Your task to perform on an android device: open app "Microsoft Excel" (install if not already installed) Image 0: 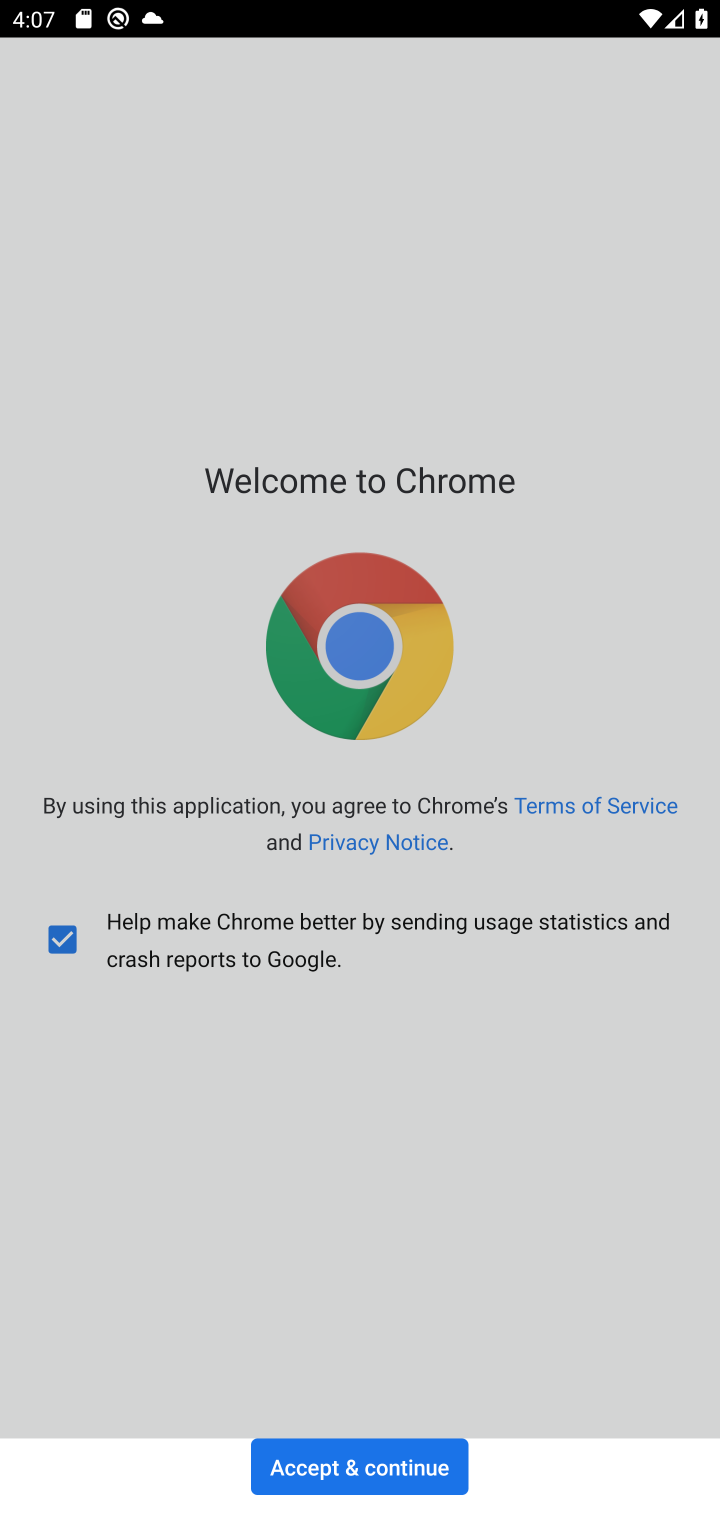
Step 0: press home button
Your task to perform on an android device: open app "Microsoft Excel" (install if not already installed) Image 1: 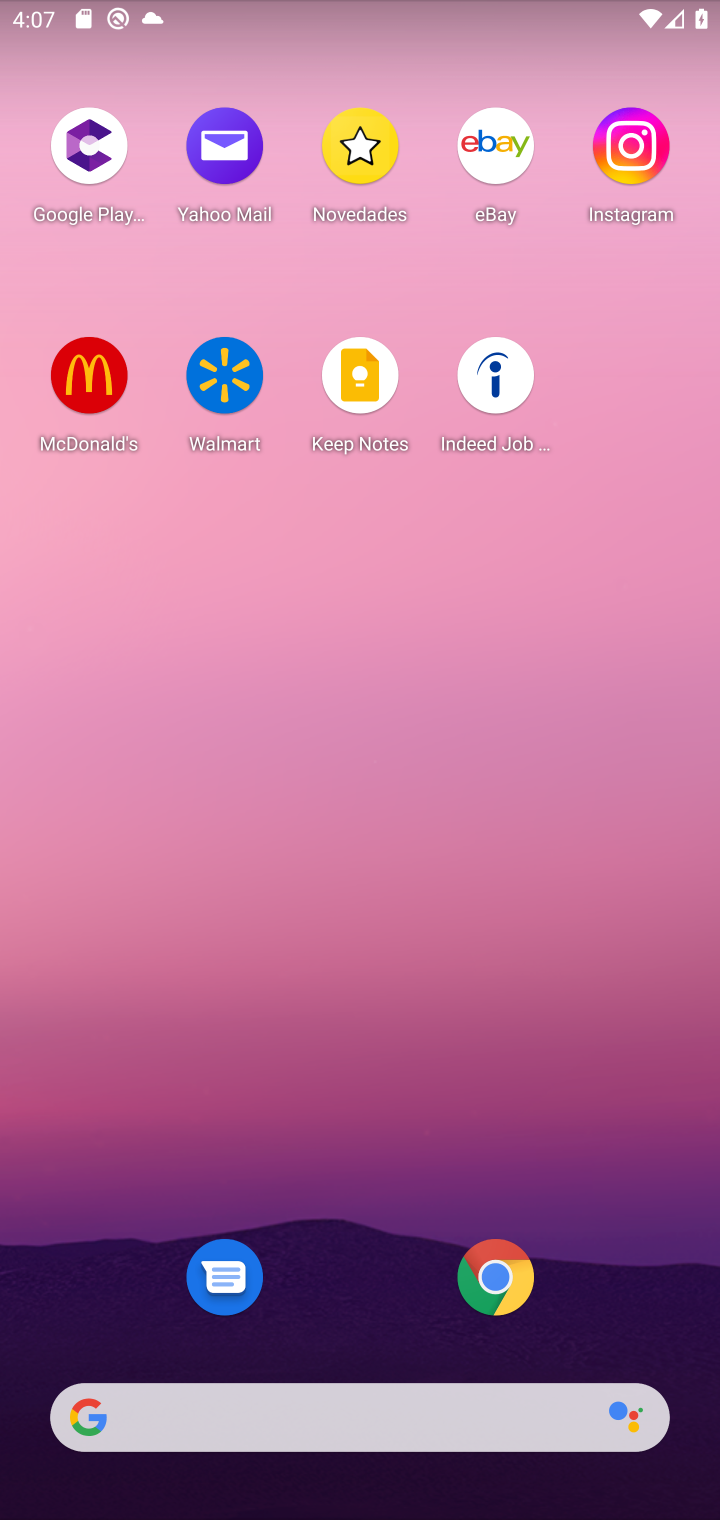
Step 1: drag from (592, 1164) to (571, 171)
Your task to perform on an android device: open app "Microsoft Excel" (install if not already installed) Image 2: 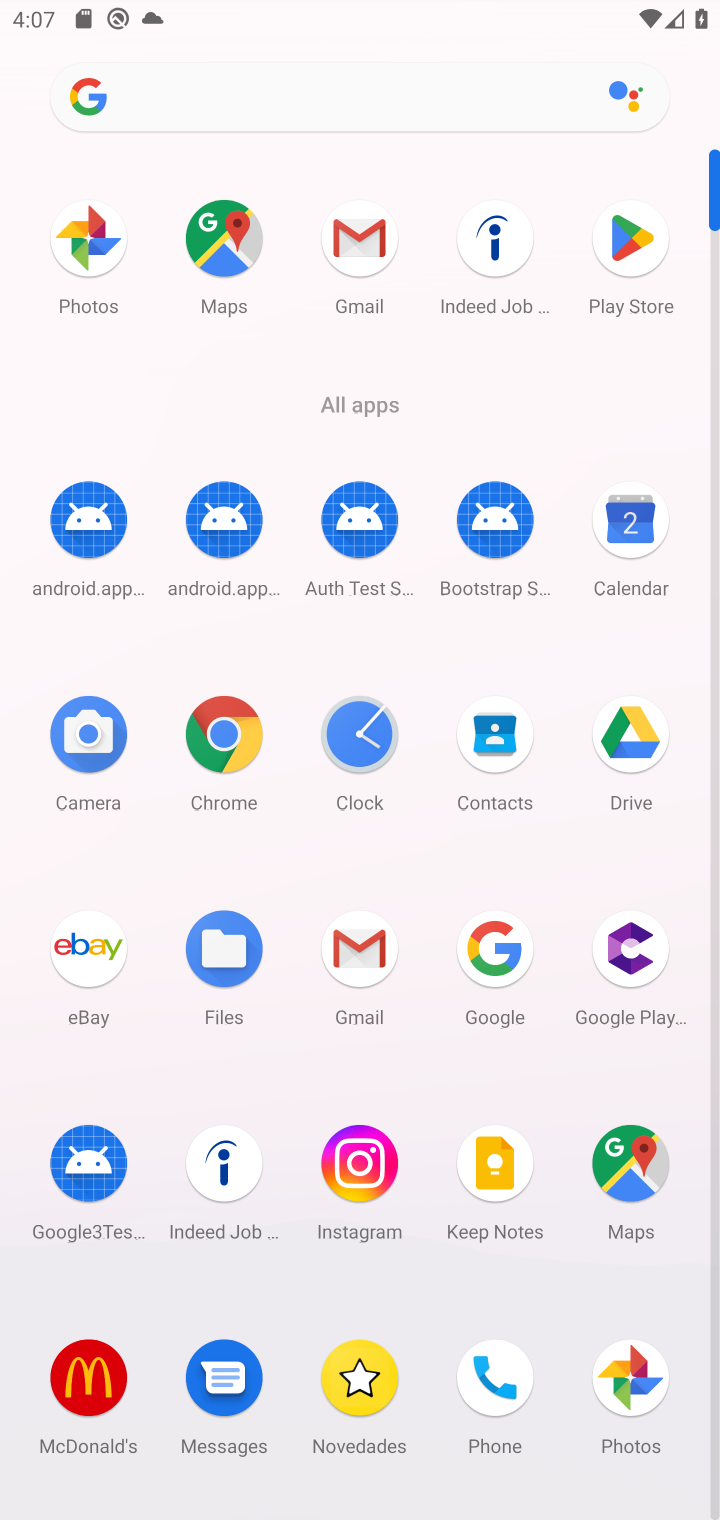
Step 2: drag from (424, 1268) to (451, 413)
Your task to perform on an android device: open app "Microsoft Excel" (install if not already installed) Image 3: 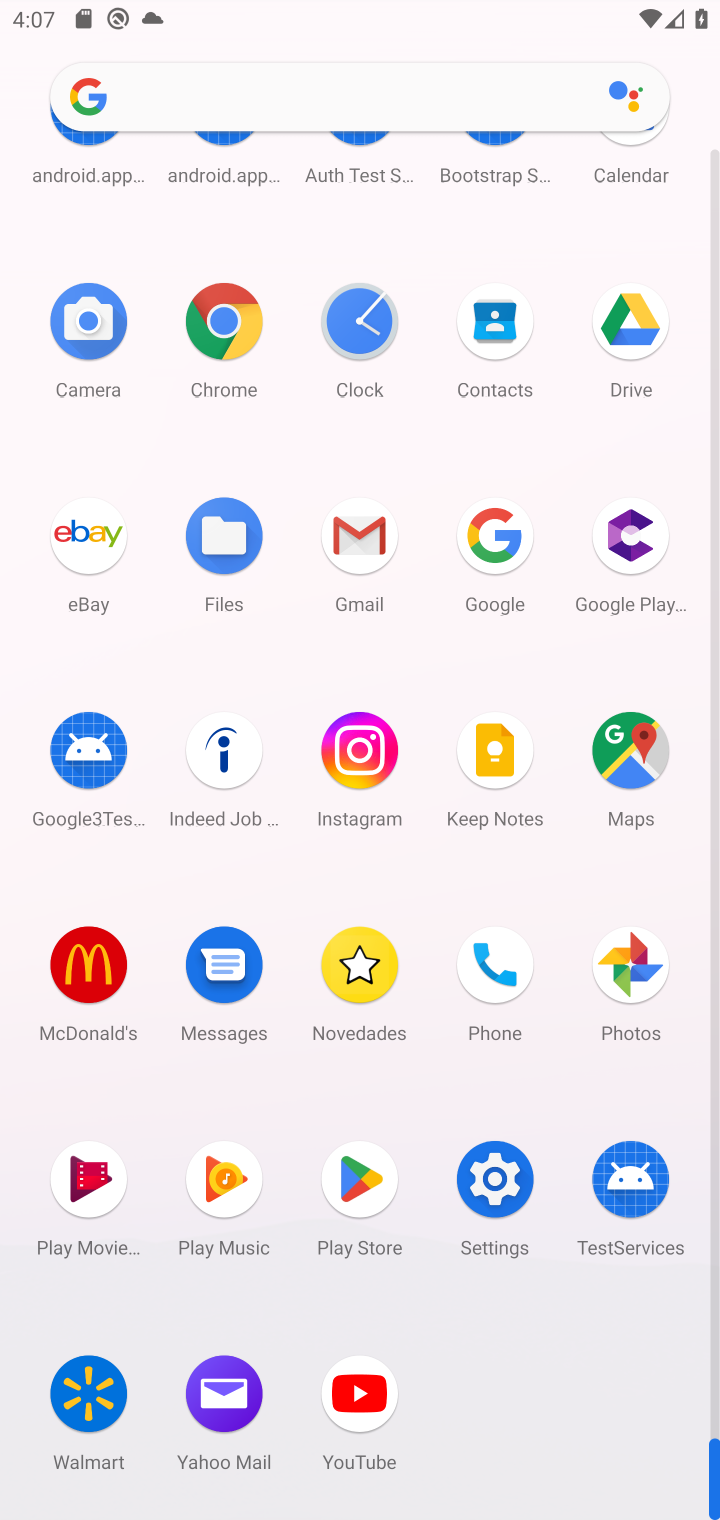
Step 3: click (362, 1163)
Your task to perform on an android device: open app "Microsoft Excel" (install if not already installed) Image 4: 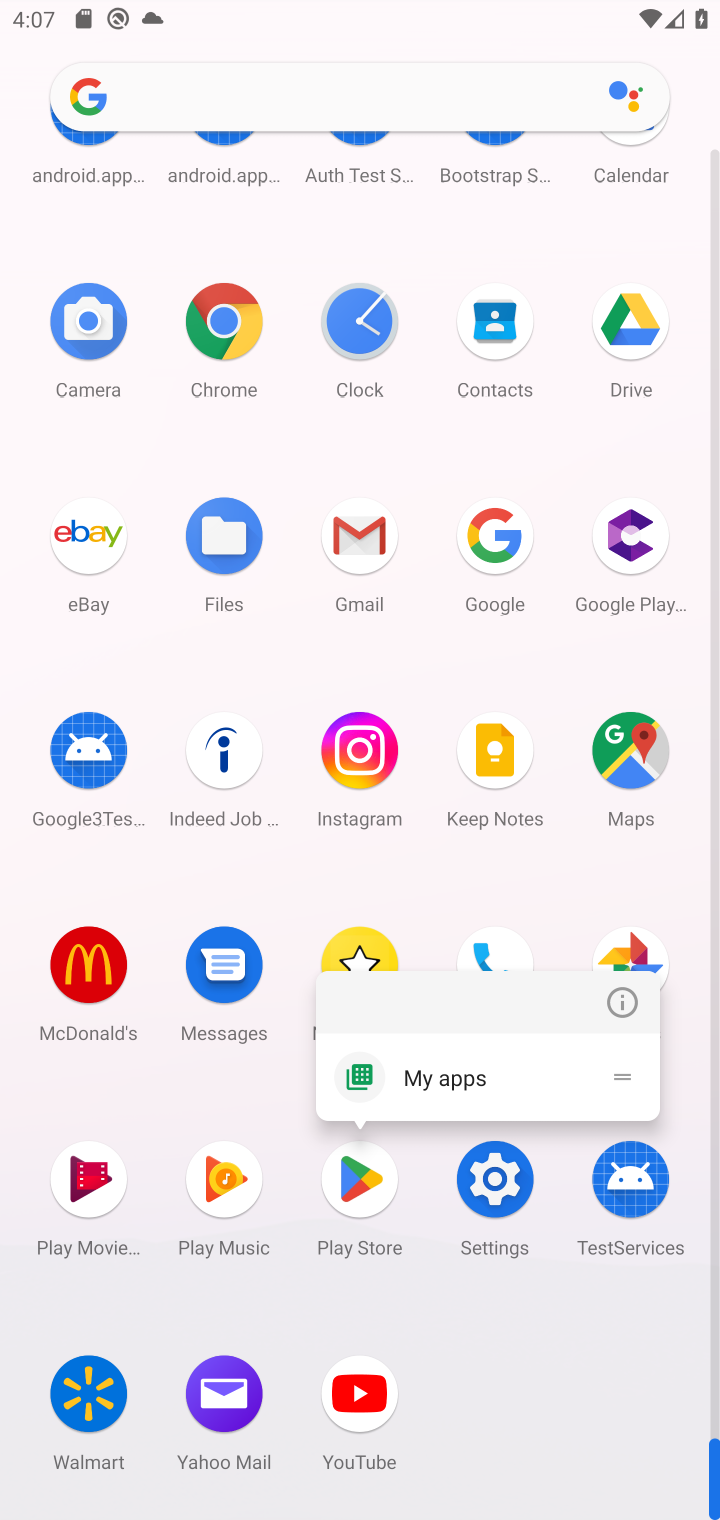
Step 4: click (353, 1161)
Your task to perform on an android device: open app "Microsoft Excel" (install if not already installed) Image 5: 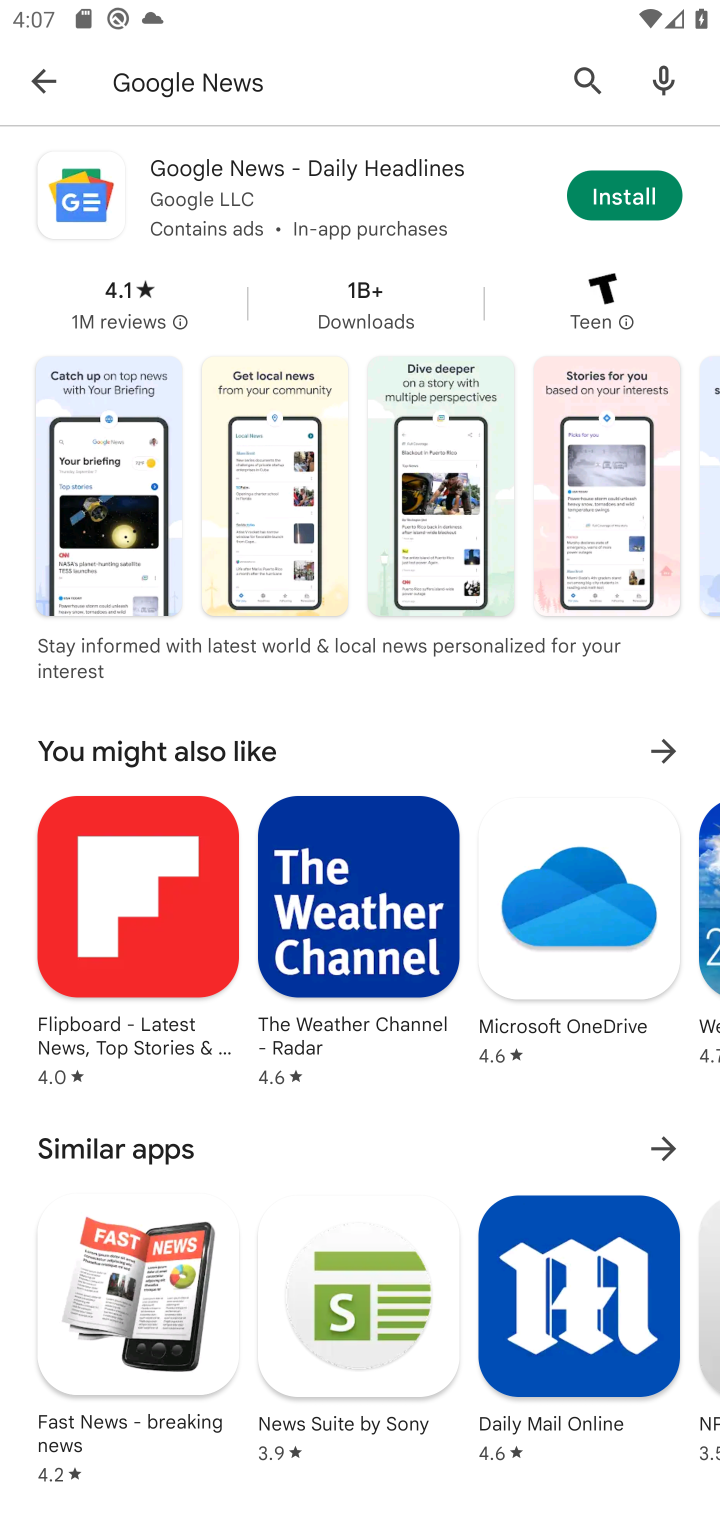
Step 5: click (360, 85)
Your task to perform on an android device: open app "Microsoft Excel" (install if not already installed) Image 6: 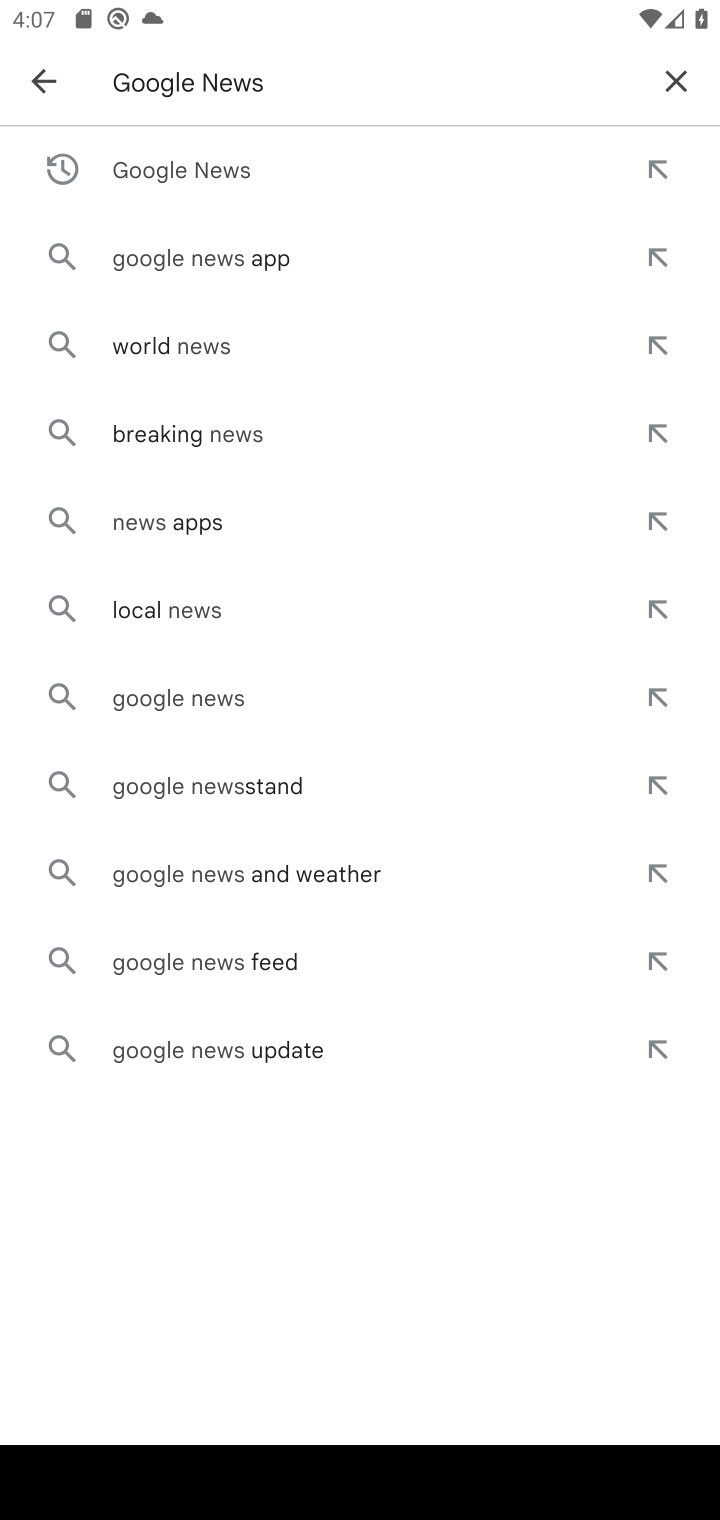
Step 6: click (676, 85)
Your task to perform on an android device: open app "Microsoft Excel" (install if not already installed) Image 7: 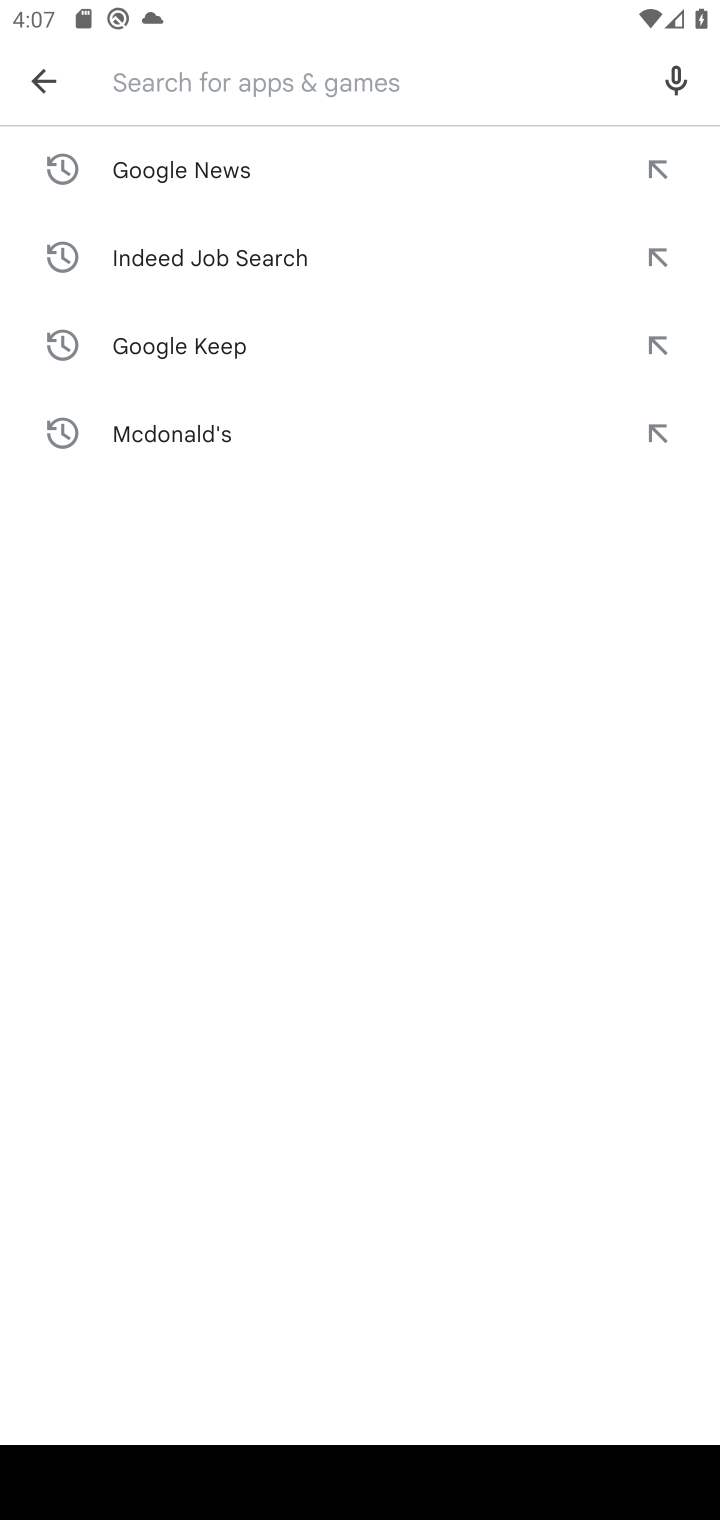
Step 7: type "Microsoft Excel"
Your task to perform on an android device: open app "Microsoft Excel" (install if not already installed) Image 8: 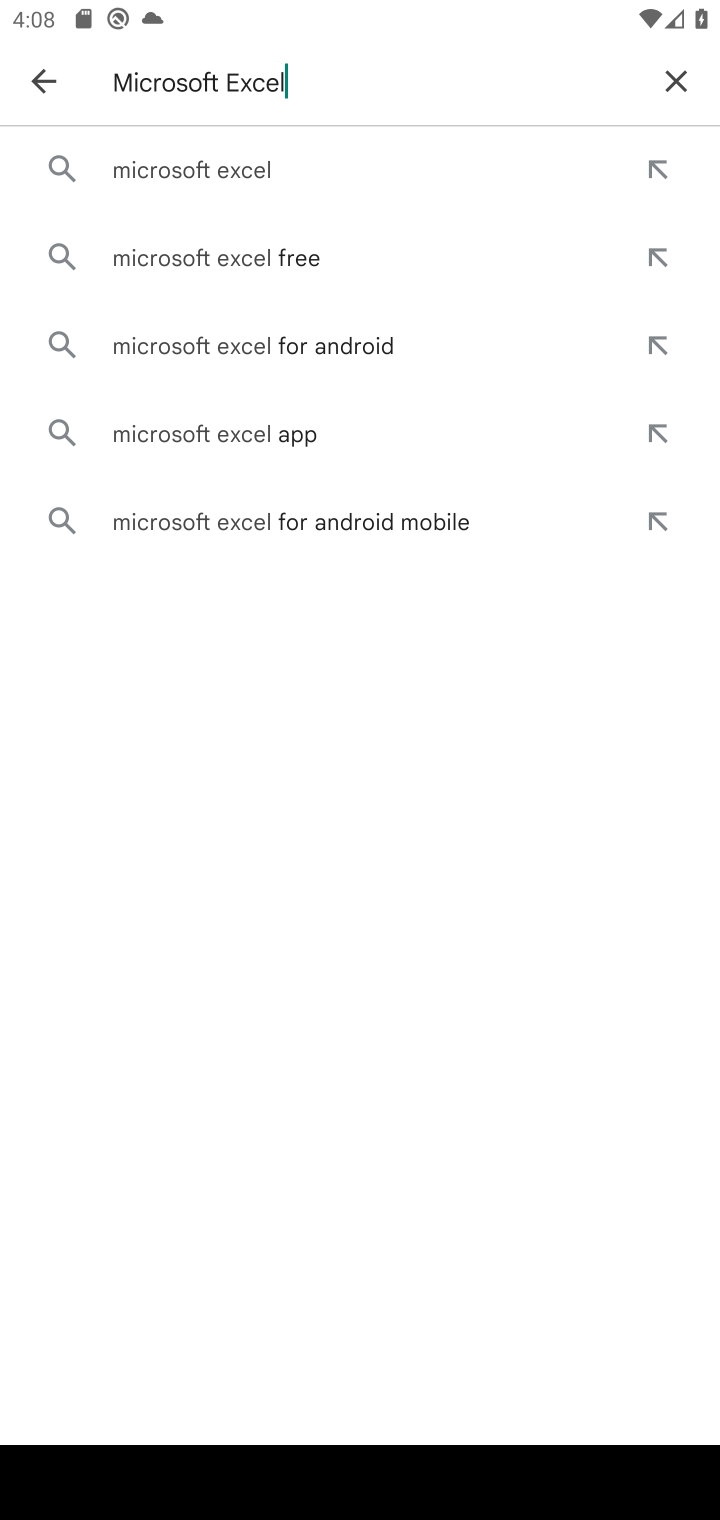
Step 8: press enter
Your task to perform on an android device: open app "Microsoft Excel" (install if not already installed) Image 9: 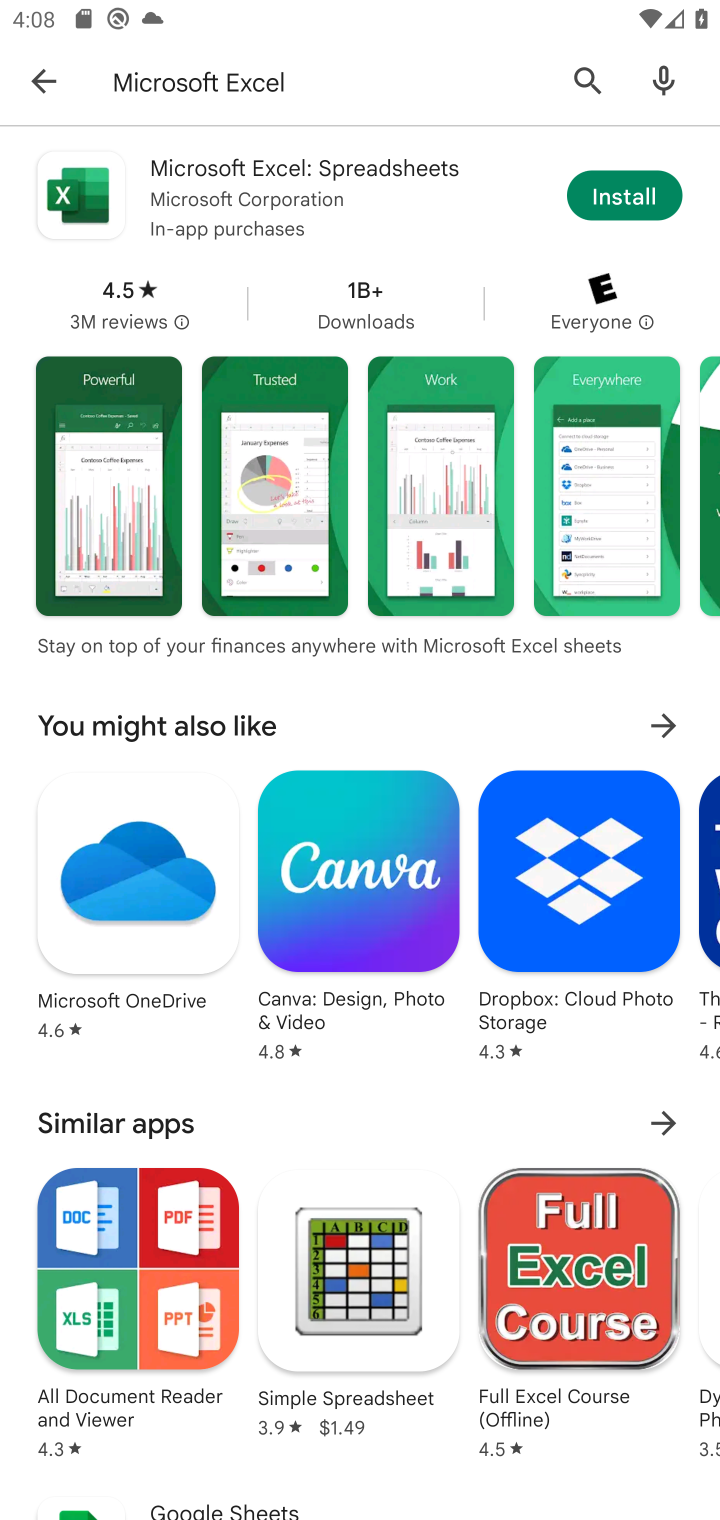
Step 9: click (627, 183)
Your task to perform on an android device: open app "Microsoft Excel" (install if not already installed) Image 10: 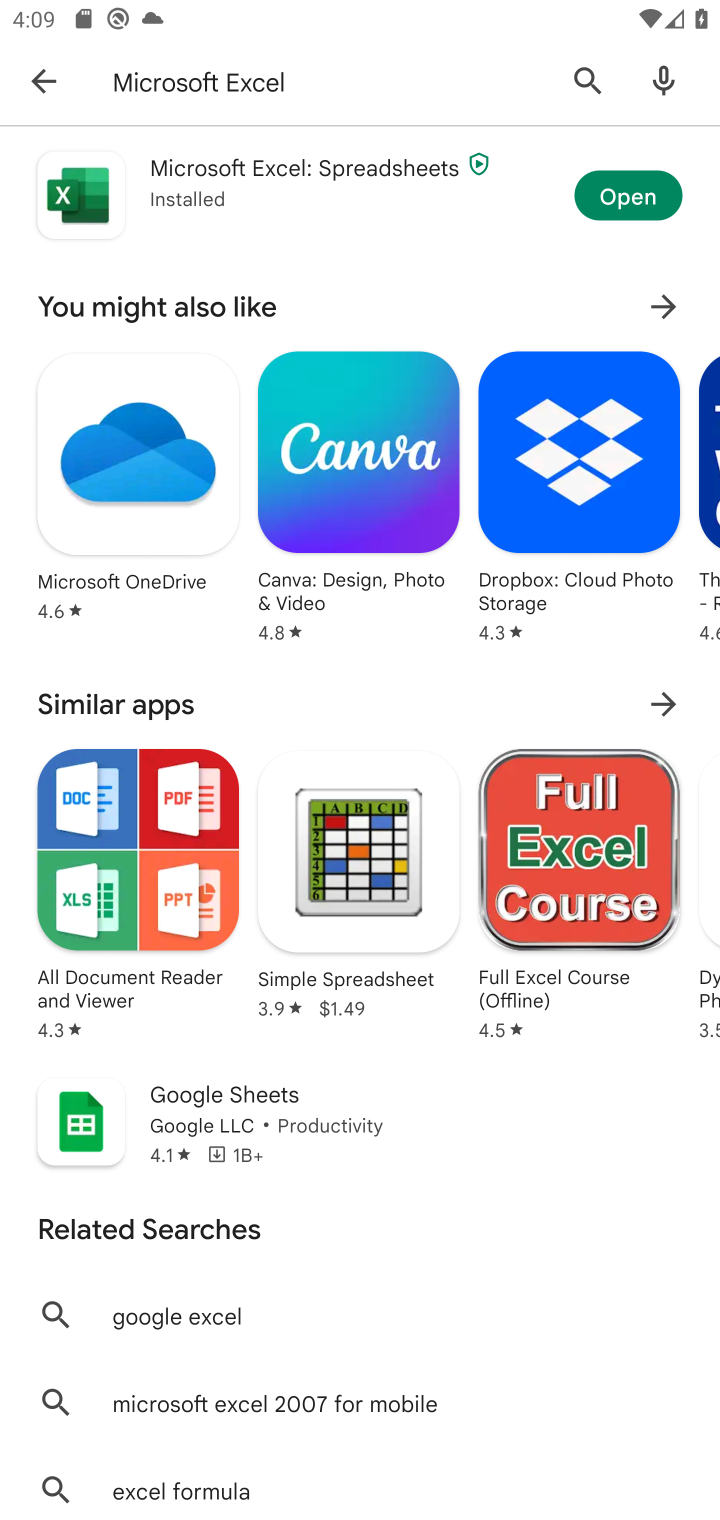
Step 10: click (636, 202)
Your task to perform on an android device: open app "Microsoft Excel" (install if not already installed) Image 11: 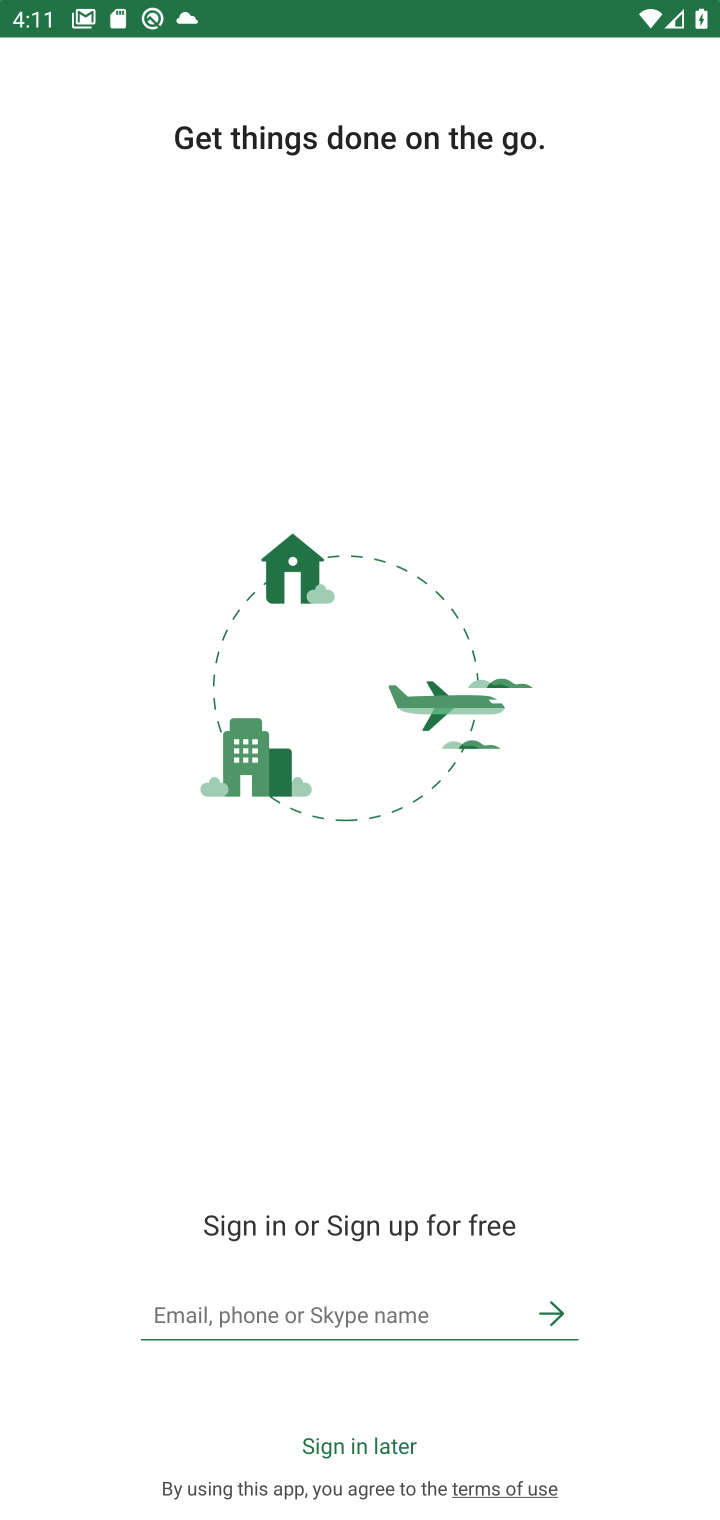
Step 11: task complete